Your task to perform on an android device: clear history in the chrome app Image 0: 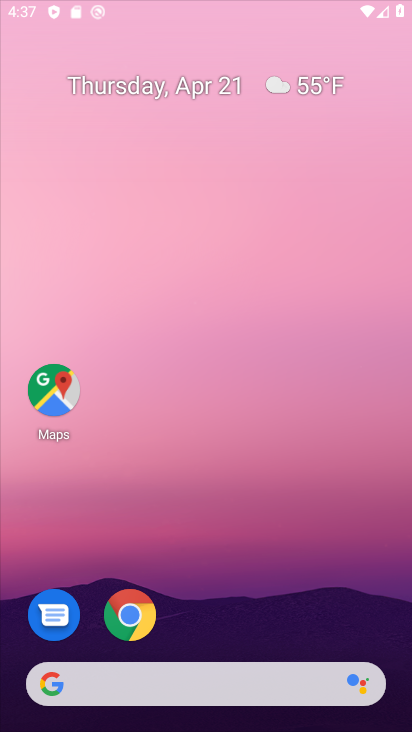
Step 0: click (201, 6)
Your task to perform on an android device: clear history in the chrome app Image 1: 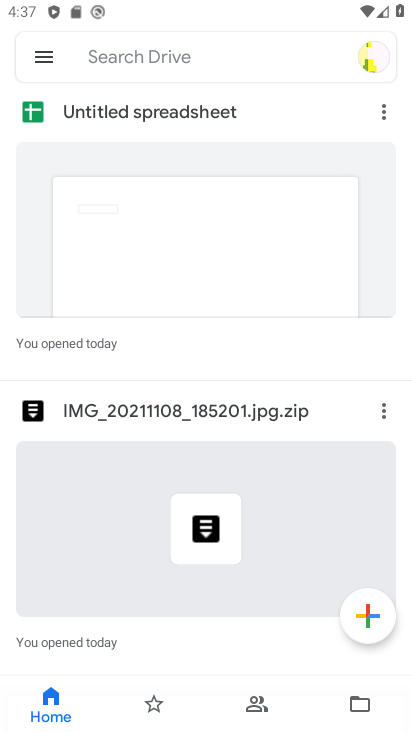
Step 1: press back button
Your task to perform on an android device: clear history in the chrome app Image 2: 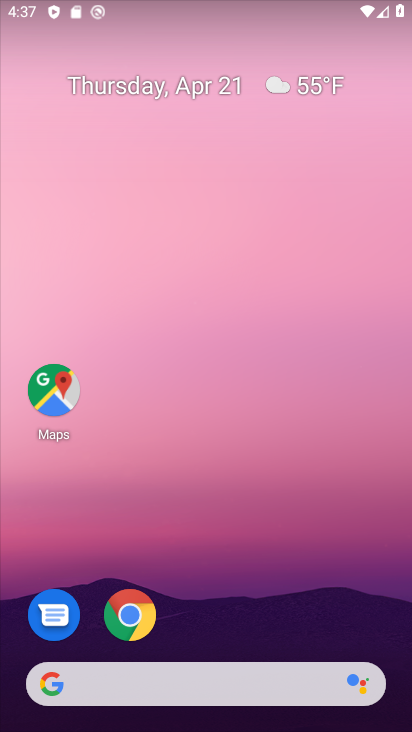
Step 2: drag from (252, 558) to (258, 19)
Your task to perform on an android device: clear history in the chrome app Image 3: 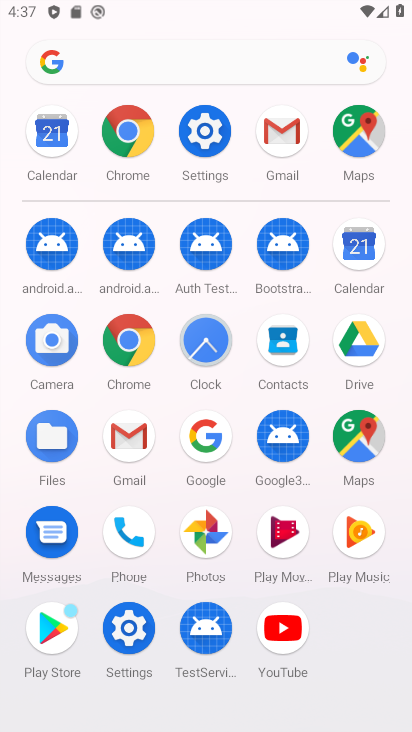
Step 3: click (120, 128)
Your task to perform on an android device: clear history in the chrome app Image 4: 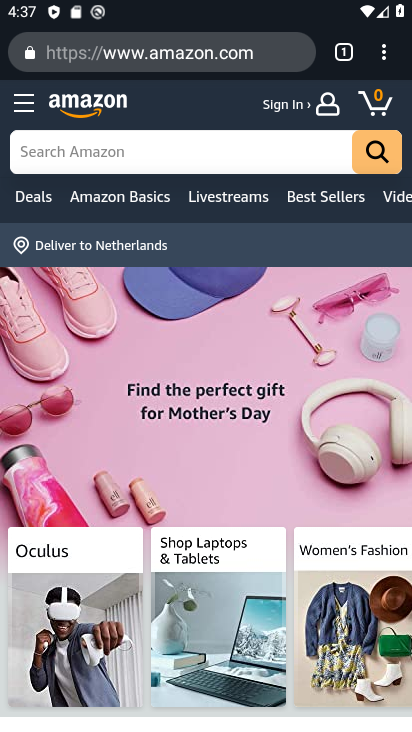
Step 4: drag from (380, 60) to (225, 355)
Your task to perform on an android device: clear history in the chrome app Image 5: 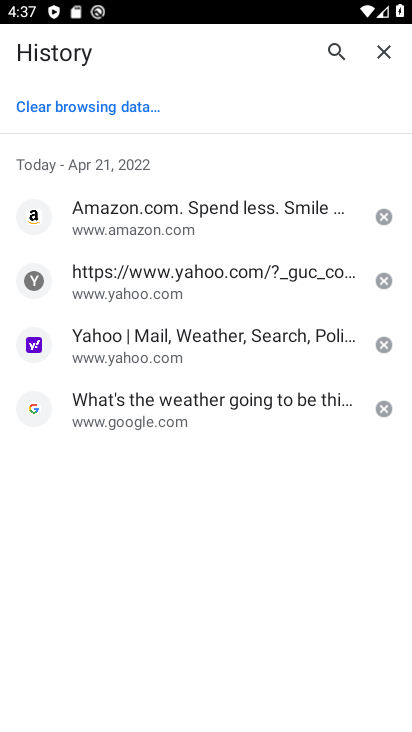
Step 5: click (109, 107)
Your task to perform on an android device: clear history in the chrome app Image 6: 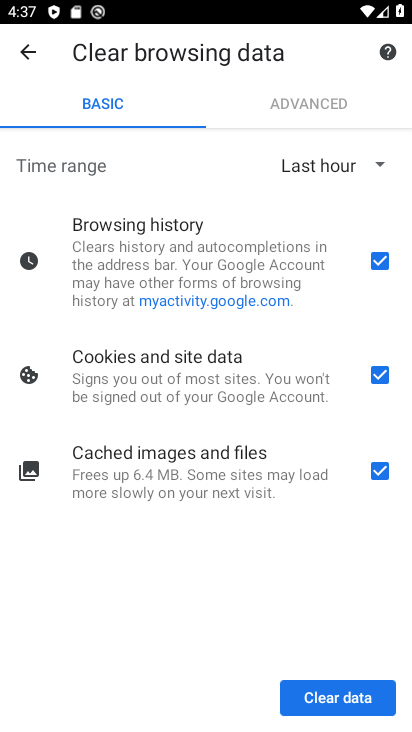
Step 6: click (332, 712)
Your task to perform on an android device: clear history in the chrome app Image 7: 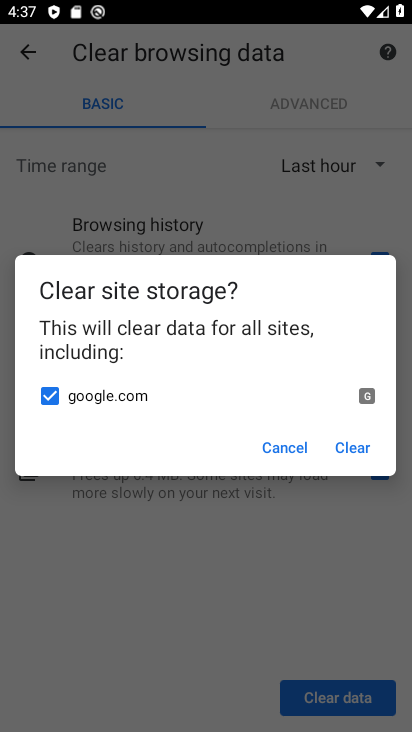
Step 7: click (353, 451)
Your task to perform on an android device: clear history in the chrome app Image 8: 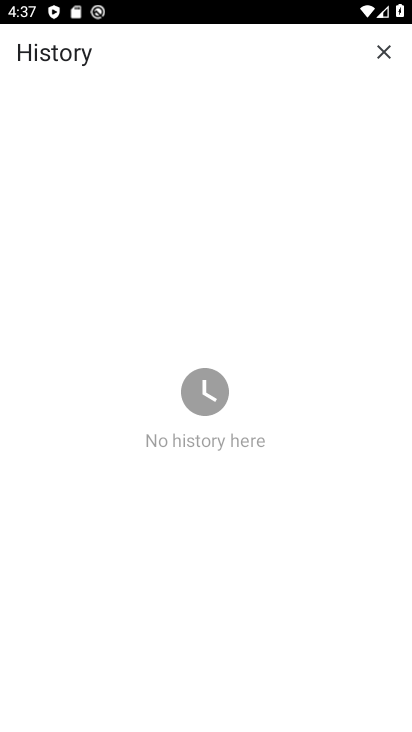
Step 8: task complete